Your task to perform on an android device: Go to sound settings Image 0: 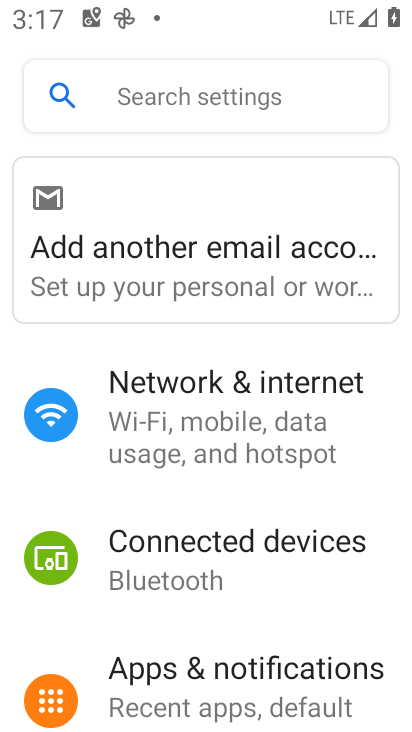
Step 0: drag from (366, 485) to (367, 359)
Your task to perform on an android device: Go to sound settings Image 1: 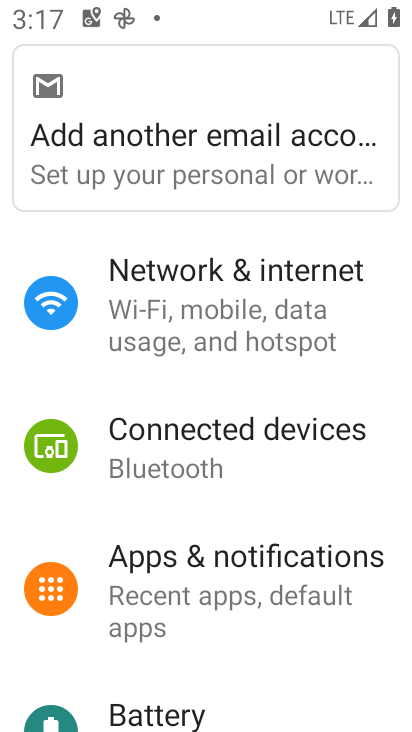
Step 1: drag from (361, 577) to (338, 397)
Your task to perform on an android device: Go to sound settings Image 2: 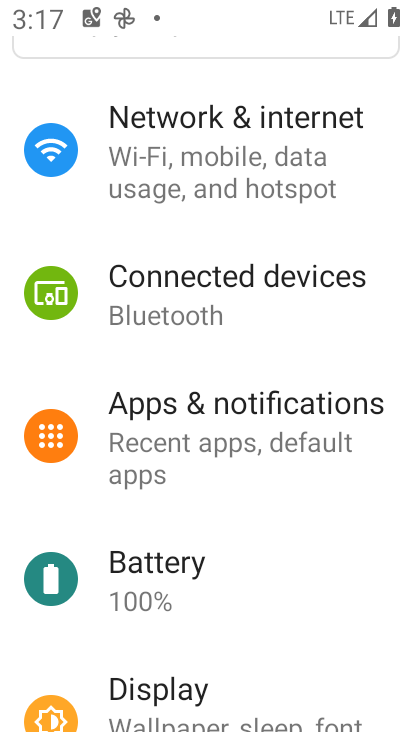
Step 2: drag from (305, 551) to (303, 393)
Your task to perform on an android device: Go to sound settings Image 3: 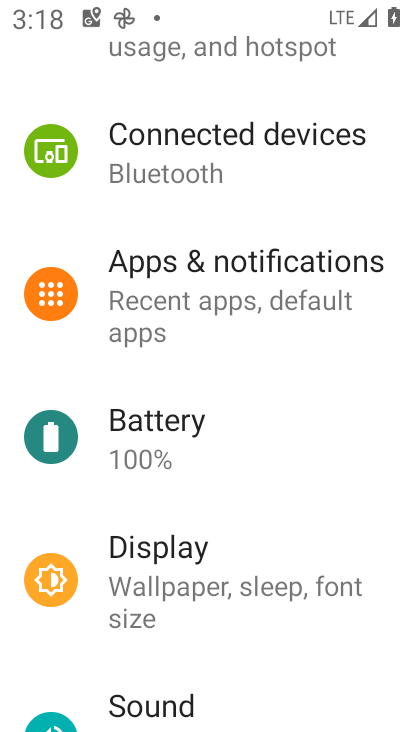
Step 3: drag from (323, 633) to (319, 393)
Your task to perform on an android device: Go to sound settings Image 4: 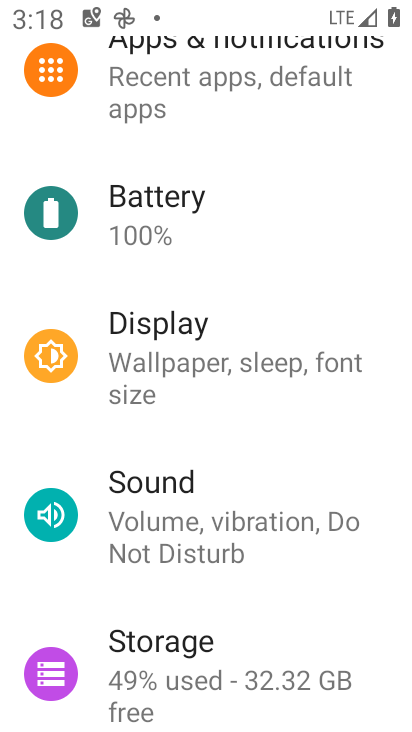
Step 4: drag from (322, 609) to (320, 467)
Your task to perform on an android device: Go to sound settings Image 5: 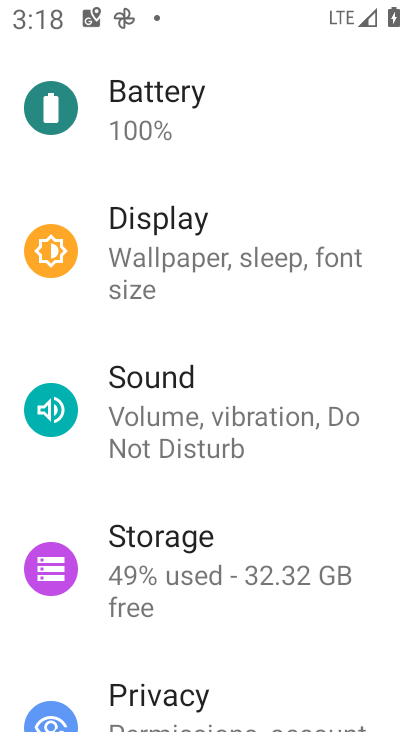
Step 5: drag from (335, 639) to (332, 472)
Your task to perform on an android device: Go to sound settings Image 6: 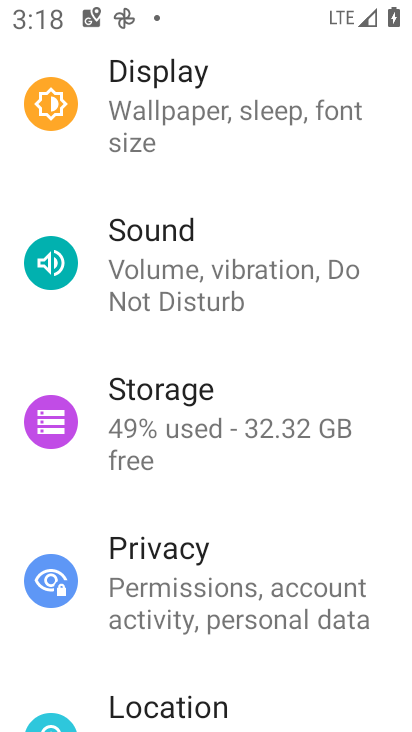
Step 6: drag from (304, 661) to (300, 525)
Your task to perform on an android device: Go to sound settings Image 7: 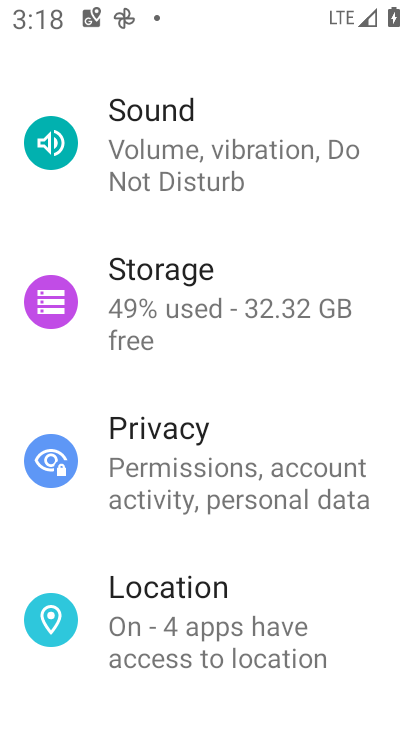
Step 7: drag from (357, 663) to (346, 527)
Your task to perform on an android device: Go to sound settings Image 8: 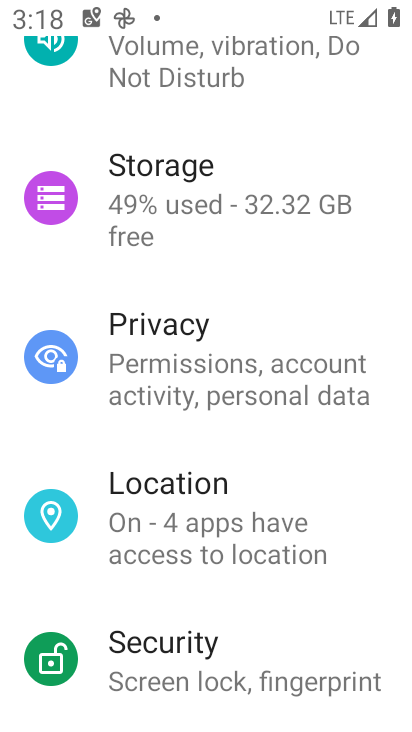
Step 8: drag from (355, 592) to (338, 455)
Your task to perform on an android device: Go to sound settings Image 9: 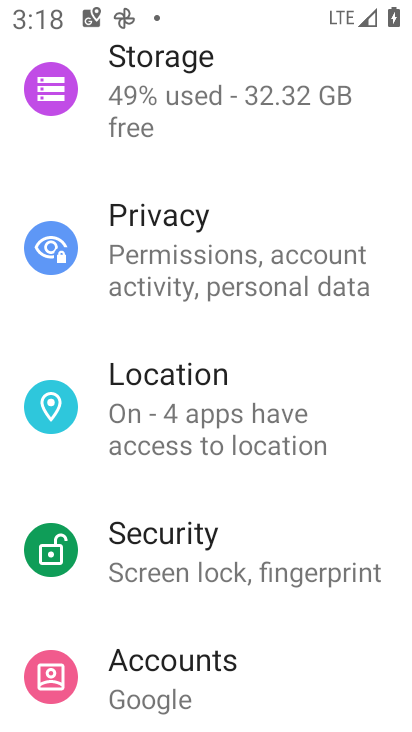
Step 9: drag from (338, 654) to (333, 416)
Your task to perform on an android device: Go to sound settings Image 10: 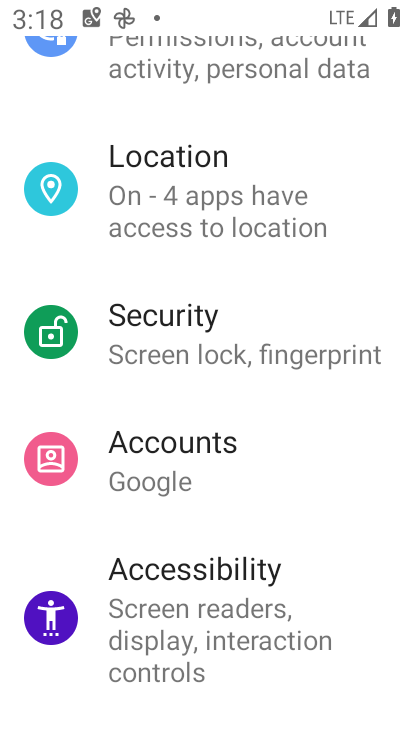
Step 10: drag from (343, 250) to (343, 403)
Your task to perform on an android device: Go to sound settings Image 11: 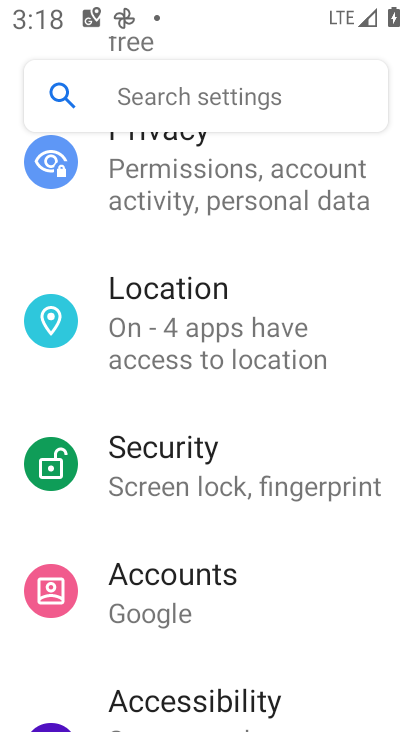
Step 11: drag from (330, 239) to (324, 501)
Your task to perform on an android device: Go to sound settings Image 12: 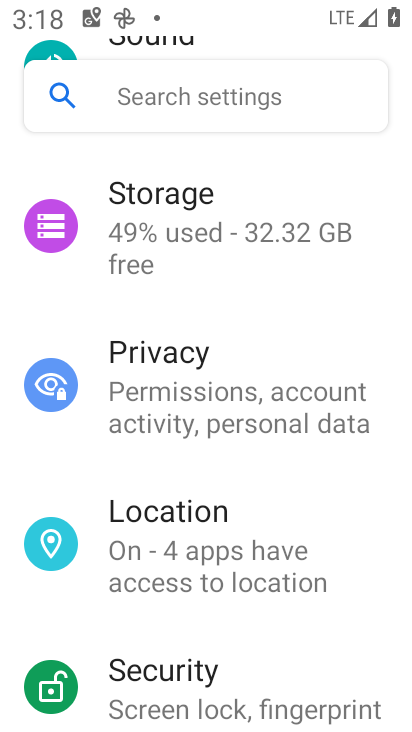
Step 12: drag from (310, 269) to (317, 543)
Your task to perform on an android device: Go to sound settings Image 13: 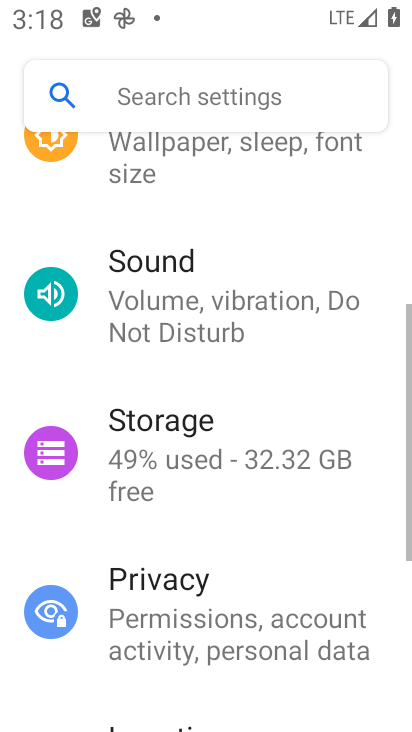
Step 13: click (277, 284)
Your task to perform on an android device: Go to sound settings Image 14: 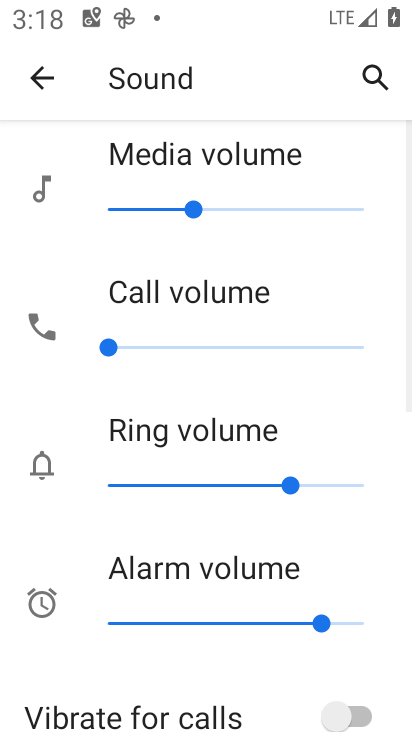
Step 14: task complete